Your task to perform on an android device: read, delete, or share a saved page in the chrome app Image 0: 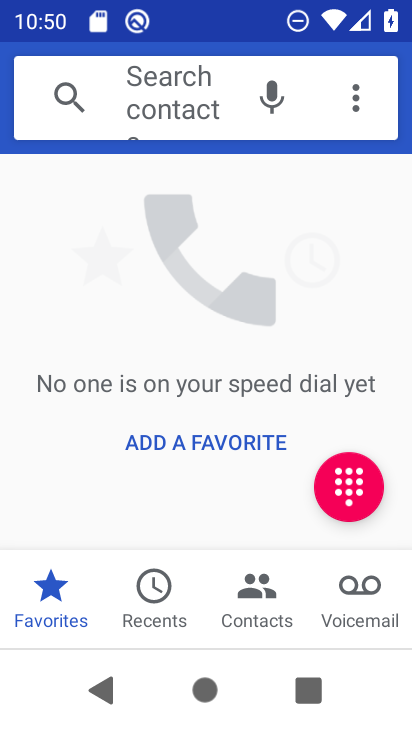
Step 0: press home button
Your task to perform on an android device: read, delete, or share a saved page in the chrome app Image 1: 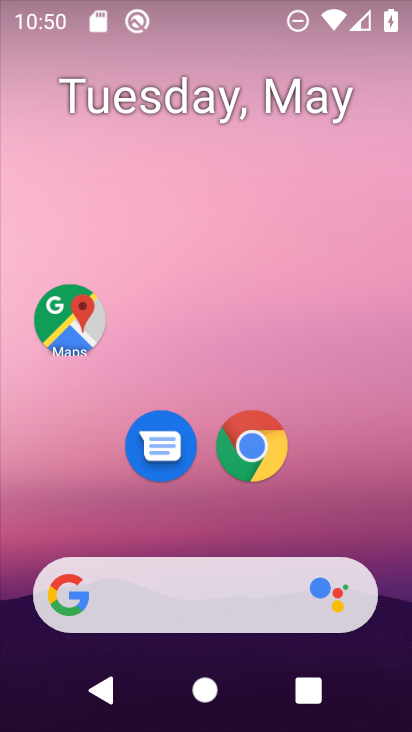
Step 1: drag from (218, 515) to (291, 5)
Your task to perform on an android device: read, delete, or share a saved page in the chrome app Image 2: 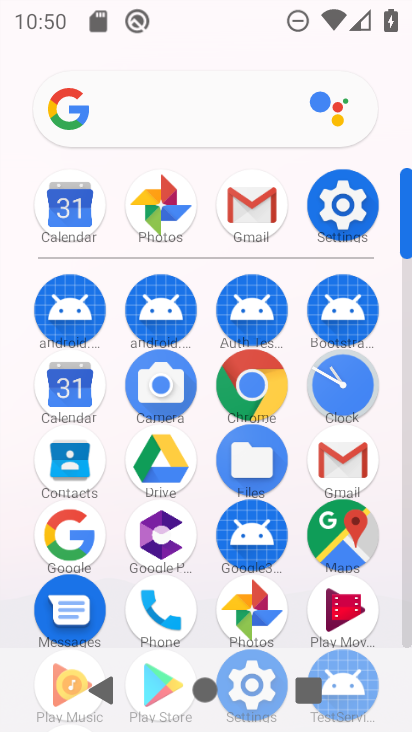
Step 2: click (252, 372)
Your task to perform on an android device: read, delete, or share a saved page in the chrome app Image 3: 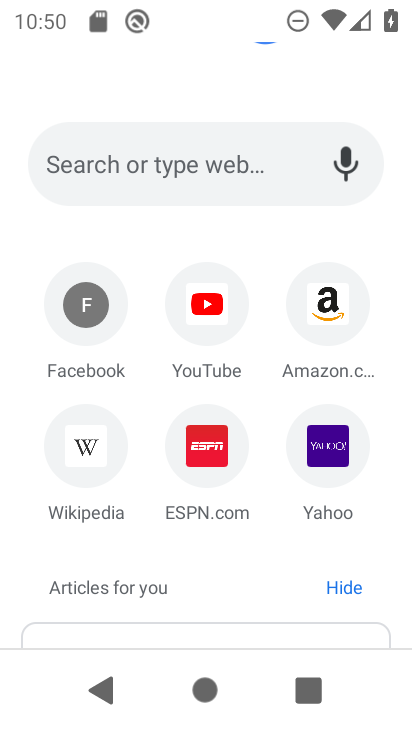
Step 3: drag from (370, 103) to (325, 440)
Your task to perform on an android device: read, delete, or share a saved page in the chrome app Image 4: 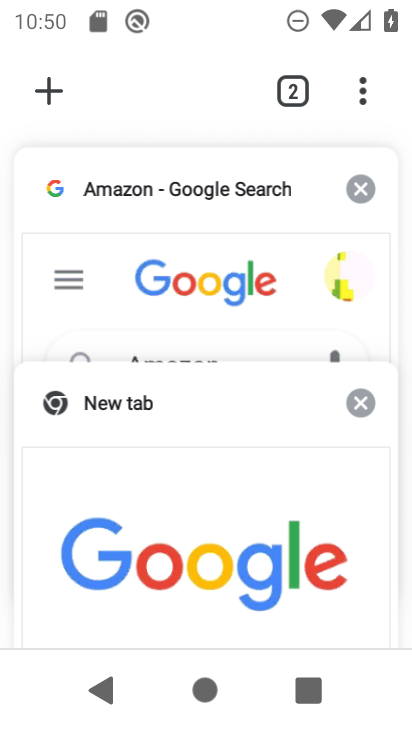
Step 4: click (368, 89)
Your task to perform on an android device: read, delete, or share a saved page in the chrome app Image 5: 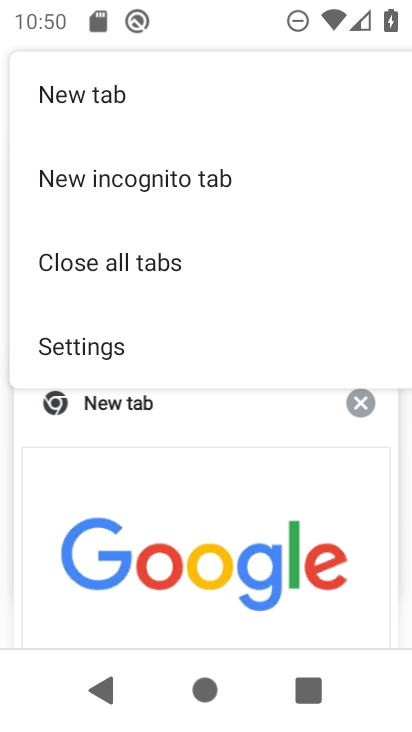
Step 5: click (174, 458)
Your task to perform on an android device: read, delete, or share a saved page in the chrome app Image 6: 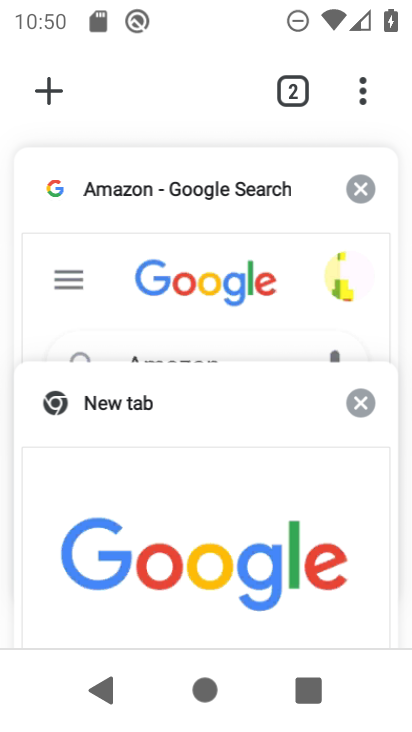
Step 6: click (174, 458)
Your task to perform on an android device: read, delete, or share a saved page in the chrome app Image 7: 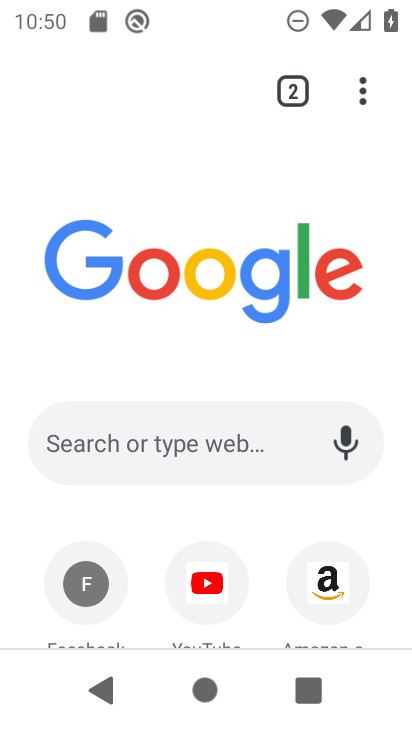
Step 7: click (348, 84)
Your task to perform on an android device: read, delete, or share a saved page in the chrome app Image 8: 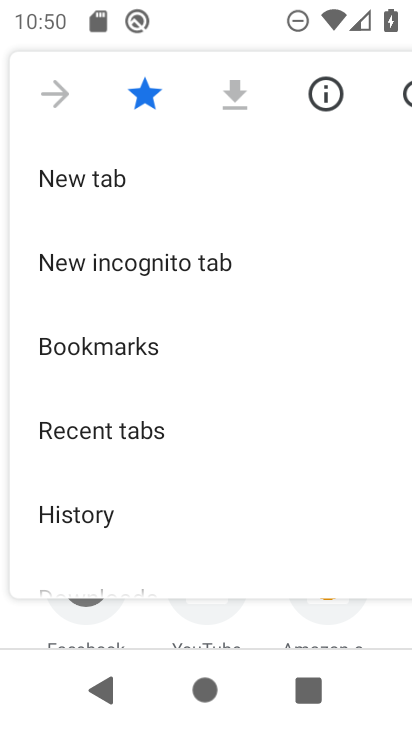
Step 8: drag from (156, 454) to (194, 283)
Your task to perform on an android device: read, delete, or share a saved page in the chrome app Image 9: 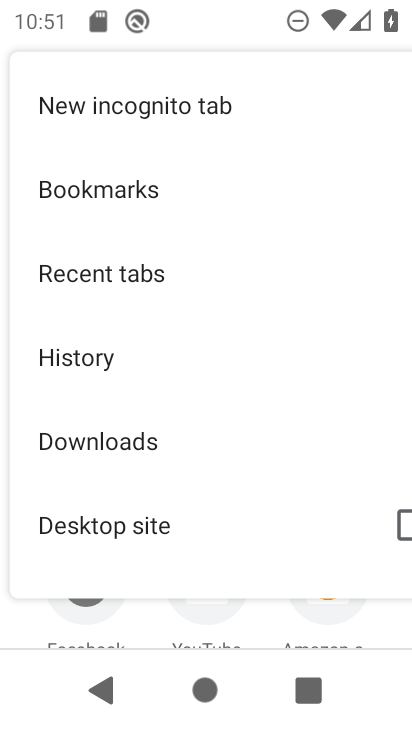
Step 9: click (141, 444)
Your task to perform on an android device: read, delete, or share a saved page in the chrome app Image 10: 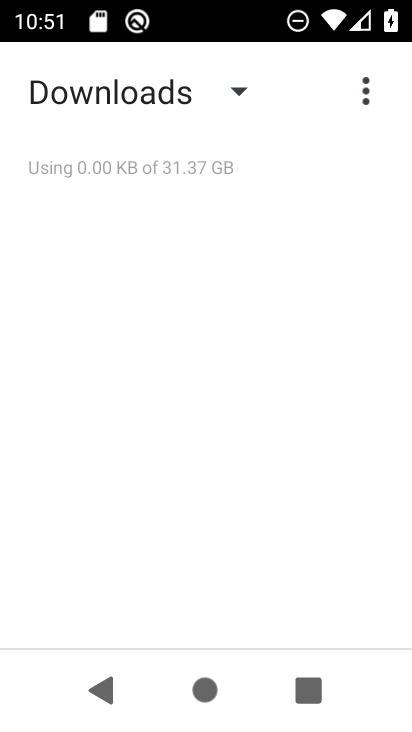
Step 10: task complete